Your task to perform on an android device: turn on the 24-hour format for clock Image 0: 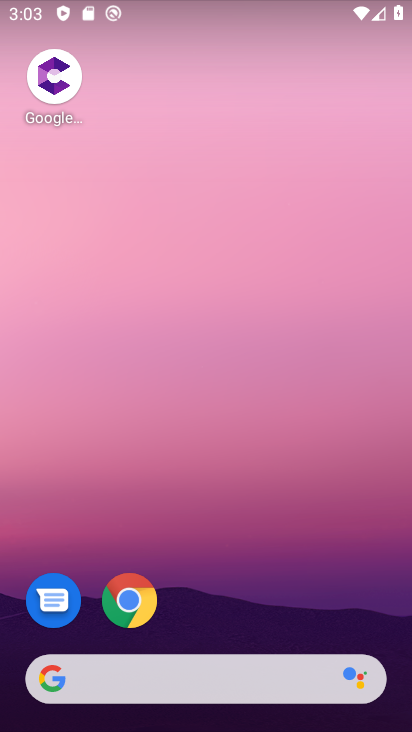
Step 0: drag from (244, 577) to (221, 179)
Your task to perform on an android device: turn on the 24-hour format for clock Image 1: 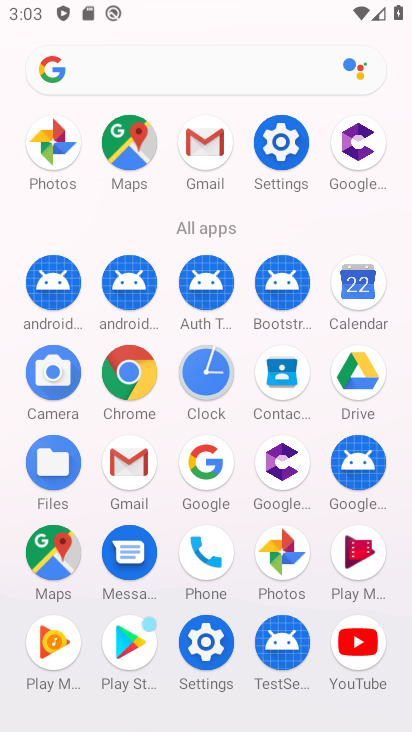
Step 1: click (198, 361)
Your task to perform on an android device: turn on the 24-hour format for clock Image 2: 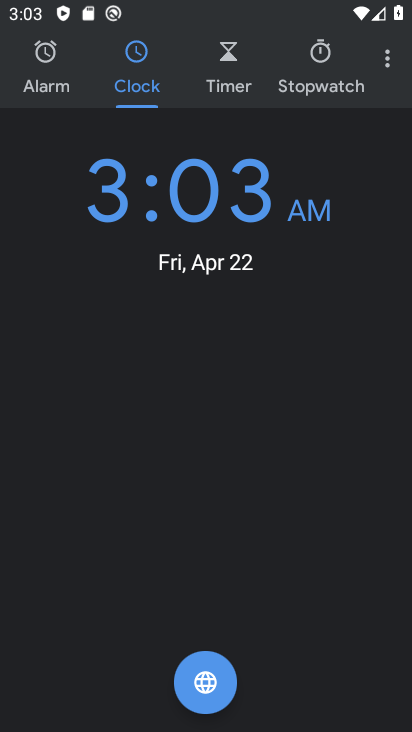
Step 2: click (389, 64)
Your task to perform on an android device: turn on the 24-hour format for clock Image 3: 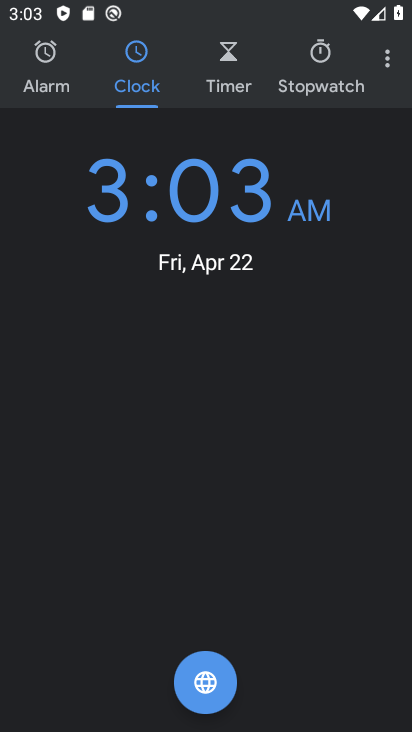
Step 3: click (388, 64)
Your task to perform on an android device: turn on the 24-hour format for clock Image 4: 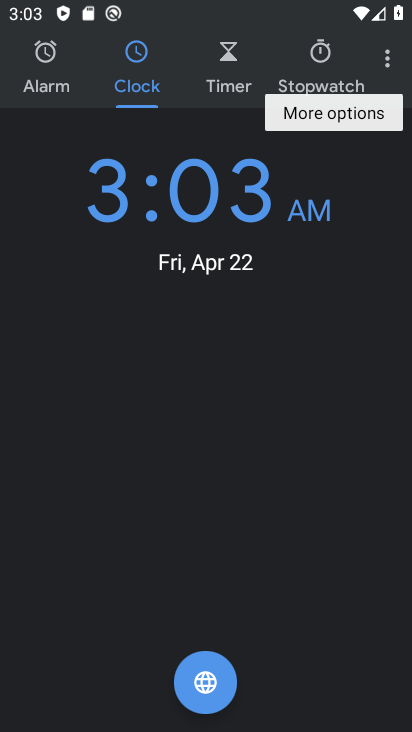
Step 4: click (389, 63)
Your task to perform on an android device: turn on the 24-hour format for clock Image 5: 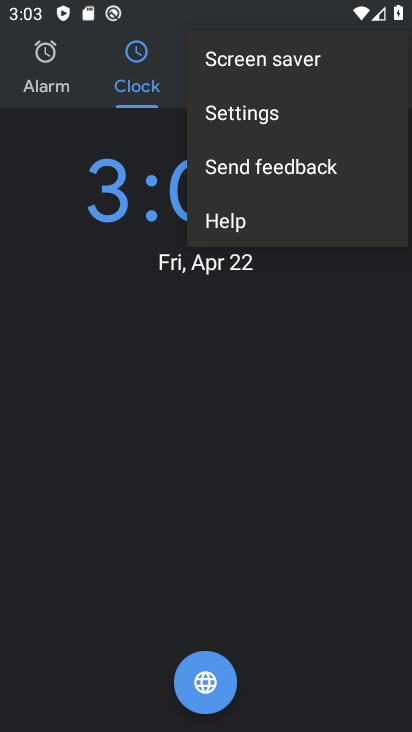
Step 5: click (233, 105)
Your task to perform on an android device: turn on the 24-hour format for clock Image 6: 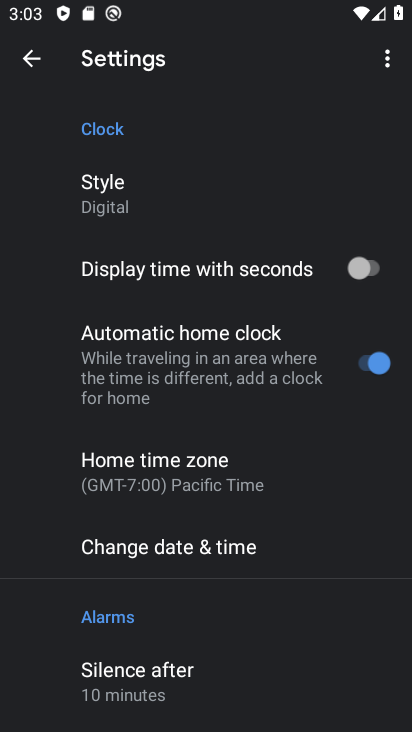
Step 6: click (183, 548)
Your task to perform on an android device: turn on the 24-hour format for clock Image 7: 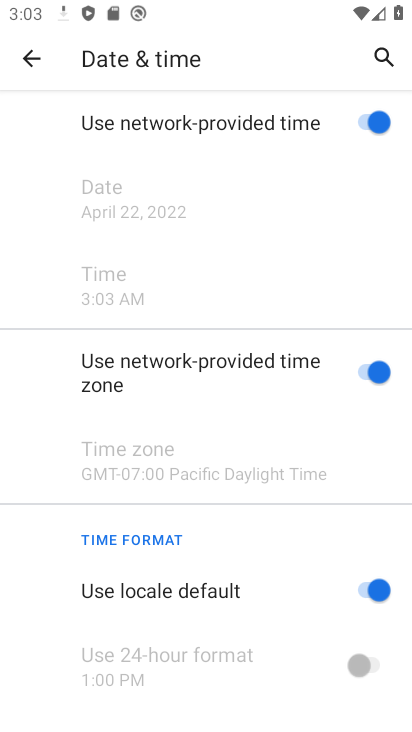
Step 7: click (364, 594)
Your task to perform on an android device: turn on the 24-hour format for clock Image 8: 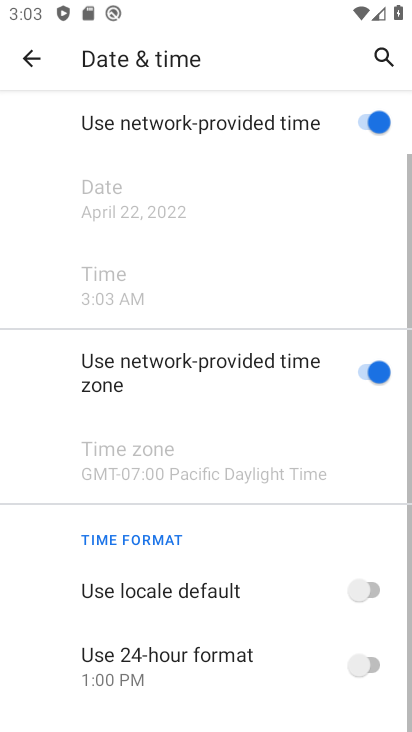
Step 8: click (373, 667)
Your task to perform on an android device: turn on the 24-hour format for clock Image 9: 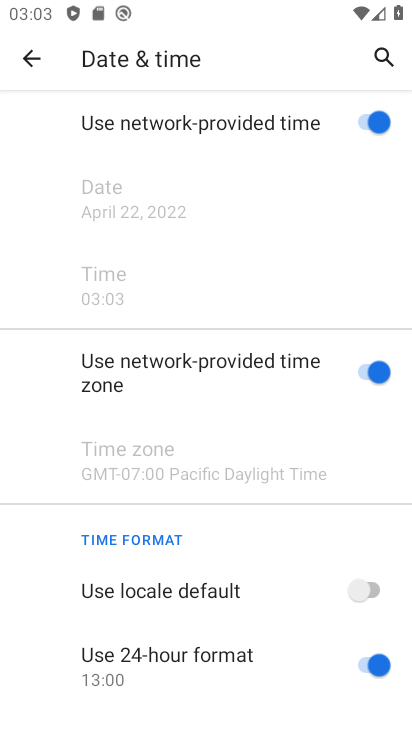
Step 9: task complete